Your task to perform on an android device: Do I have any events tomorrow? Image 0: 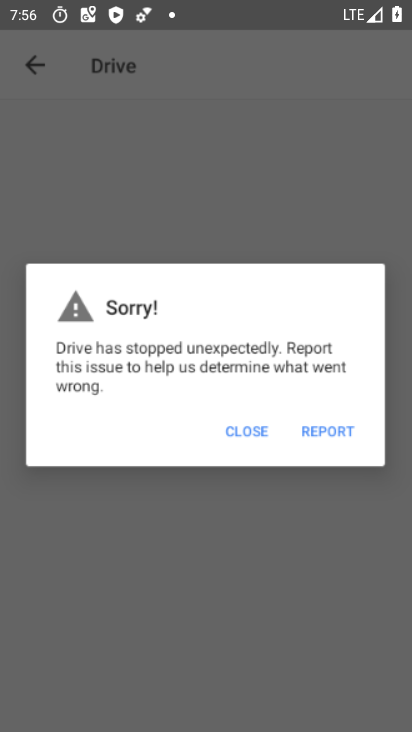
Step 0: drag from (172, 601) to (140, 136)
Your task to perform on an android device: Do I have any events tomorrow? Image 1: 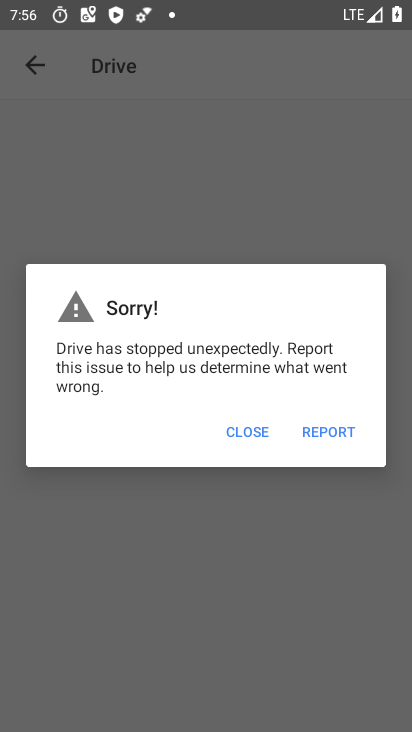
Step 1: press home button
Your task to perform on an android device: Do I have any events tomorrow? Image 2: 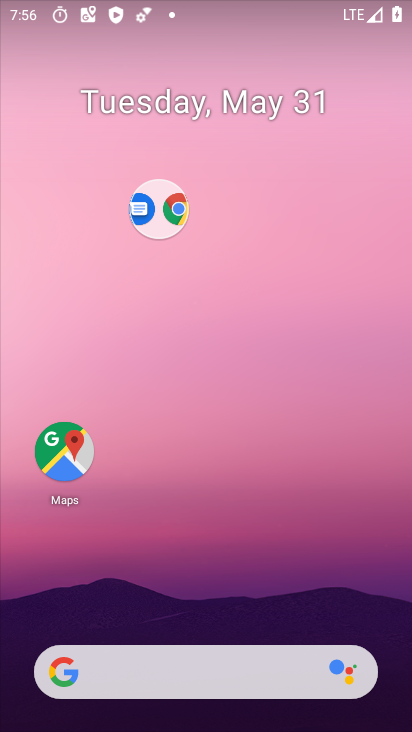
Step 2: drag from (196, 612) to (162, 231)
Your task to perform on an android device: Do I have any events tomorrow? Image 3: 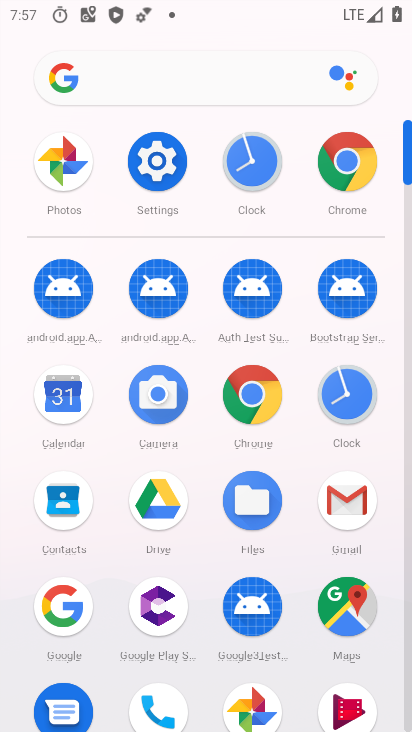
Step 3: click (51, 418)
Your task to perform on an android device: Do I have any events tomorrow? Image 4: 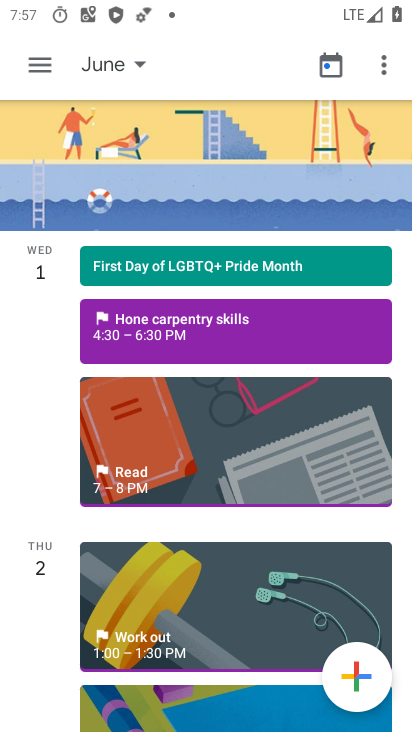
Step 4: task complete